Your task to perform on an android device: Is it going to rain this weekend? Image 0: 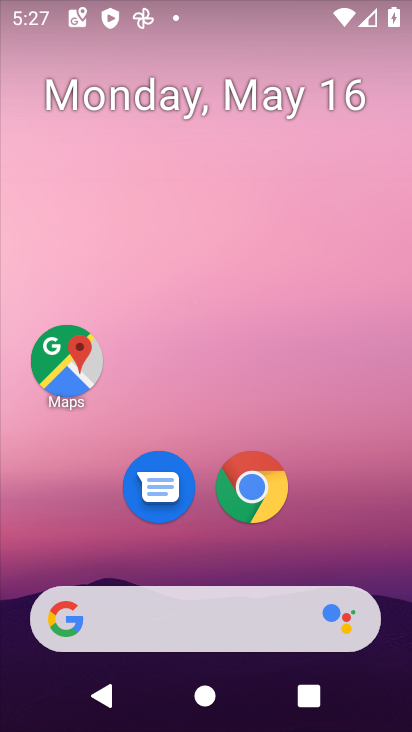
Step 0: drag from (12, 152) to (326, 163)
Your task to perform on an android device: Is it going to rain this weekend? Image 1: 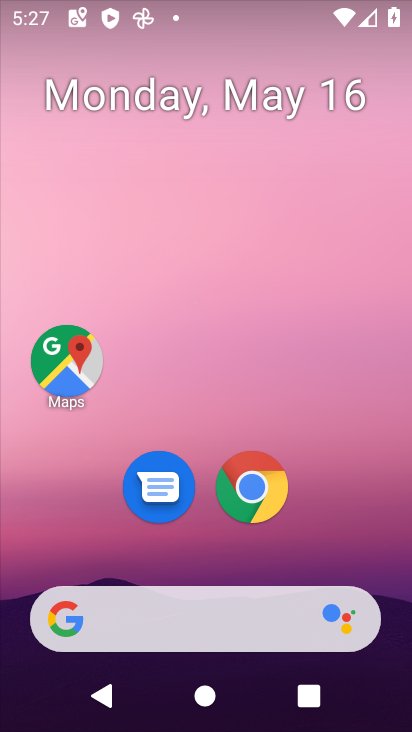
Step 1: drag from (8, 156) to (402, 176)
Your task to perform on an android device: Is it going to rain this weekend? Image 2: 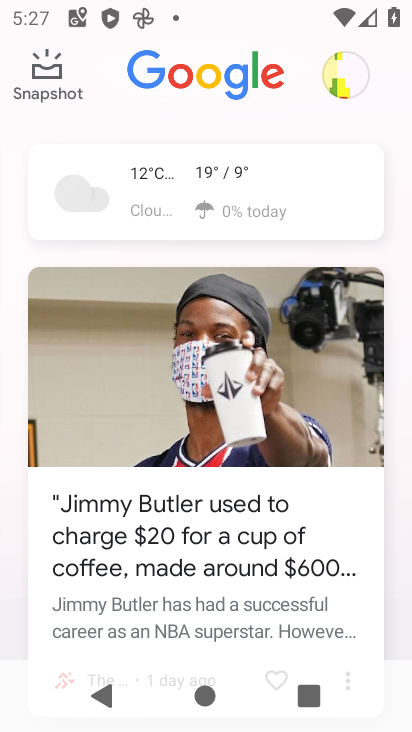
Step 2: click (247, 192)
Your task to perform on an android device: Is it going to rain this weekend? Image 3: 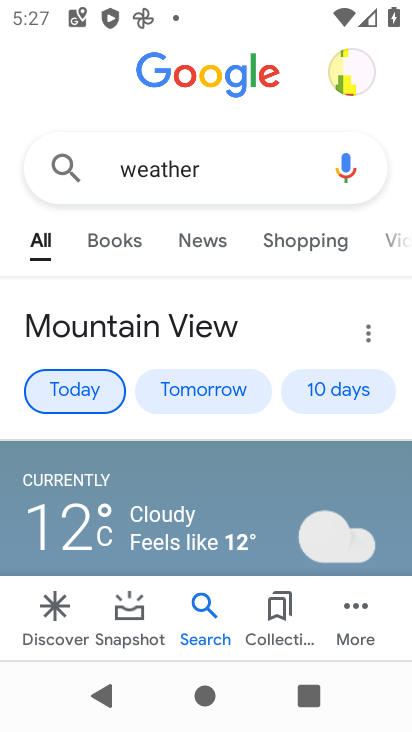
Step 3: click (335, 393)
Your task to perform on an android device: Is it going to rain this weekend? Image 4: 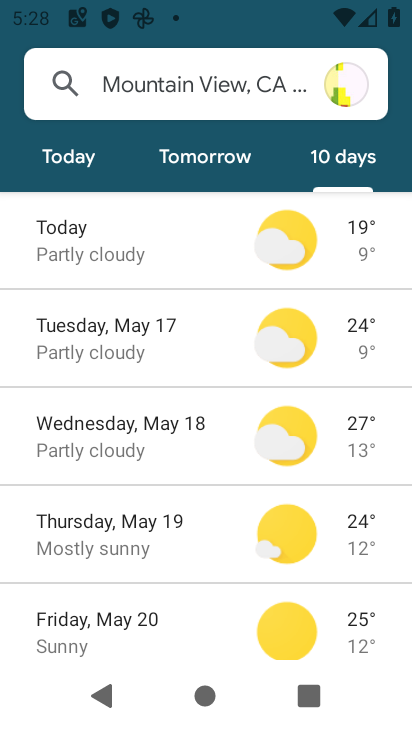
Step 4: task complete